Your task to perform on an android device: Open network settings Image 0: 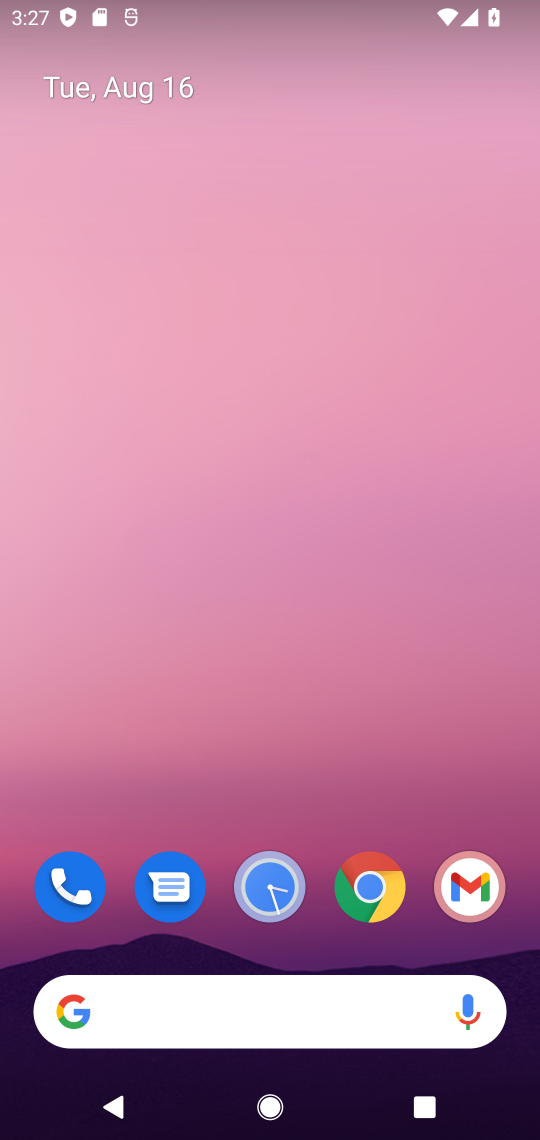
Step 0: drag from (317, 815) to (280, 80)
Your task to perform on an android device: Open network settings Image 1: 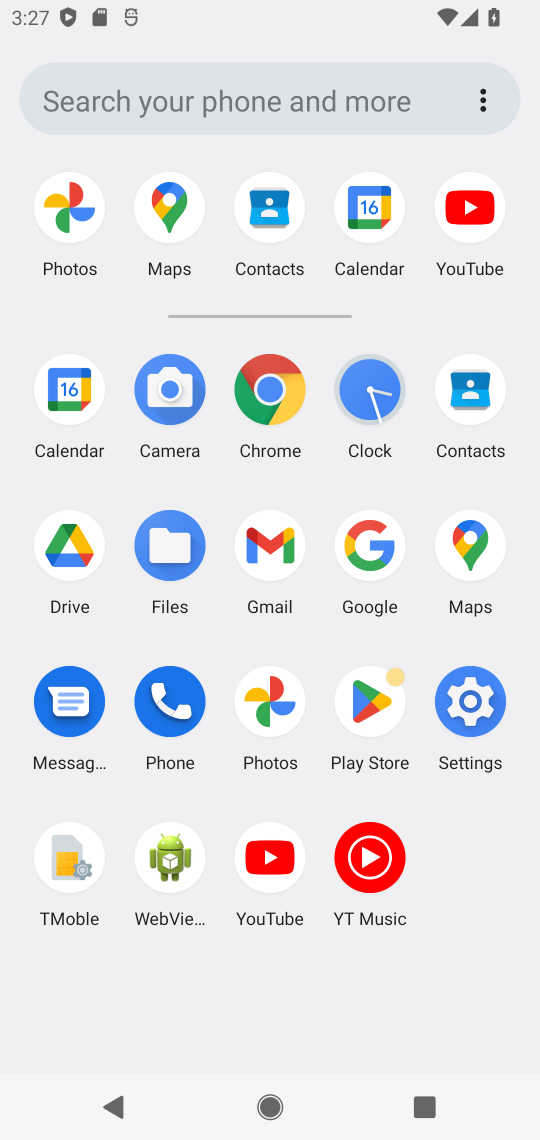
Step 1: click (461, 708)
Your task to perform on an android device: Open network settings Image 2: 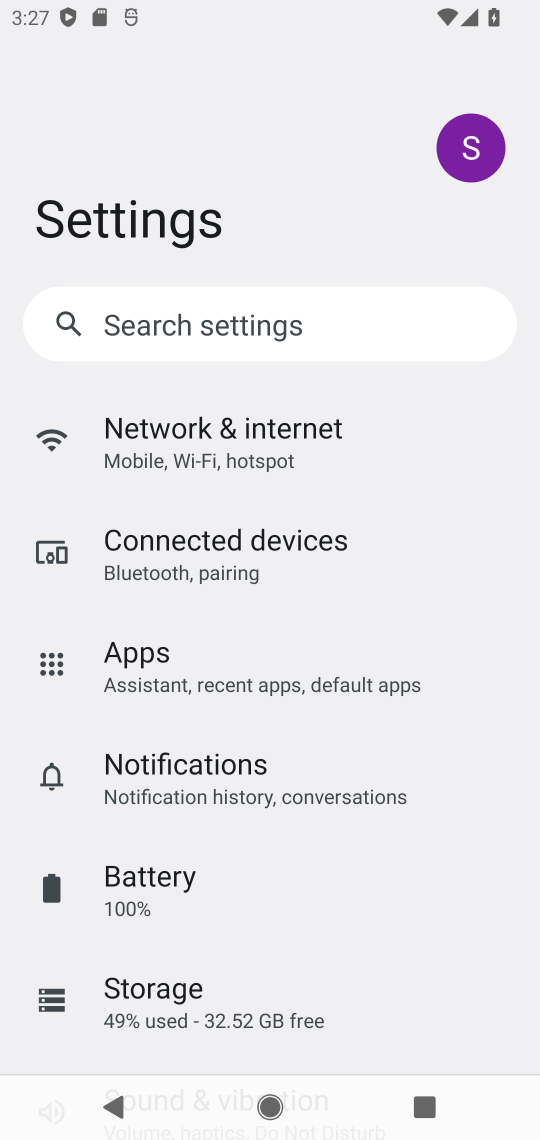
Step 2: click (254, 471)
Your task to perform on an android device: Open network settings Image 3: 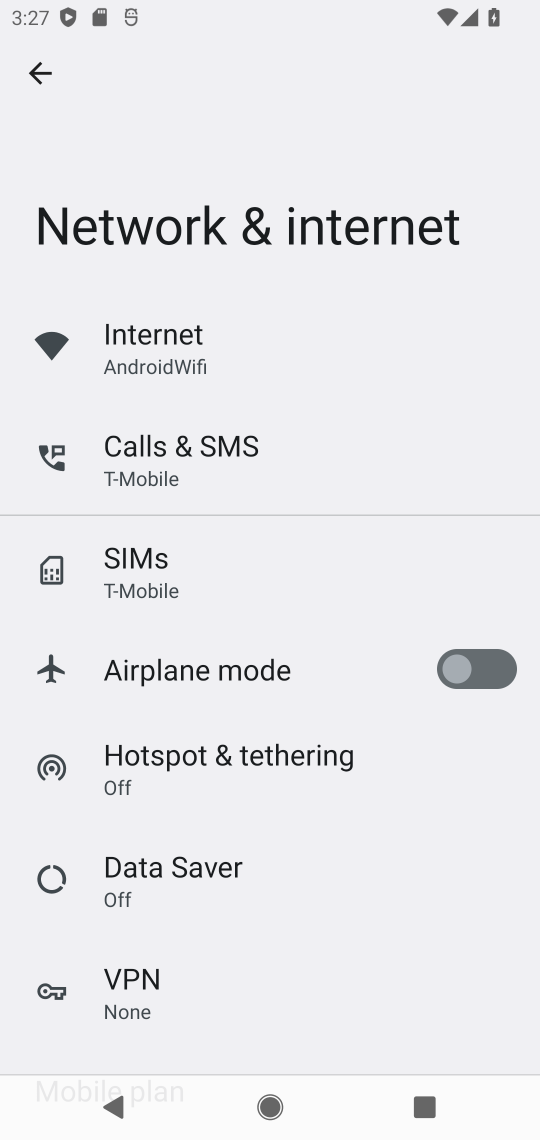
Step 3: task complete